Your task to perform on an android device: check battery use Image 0: 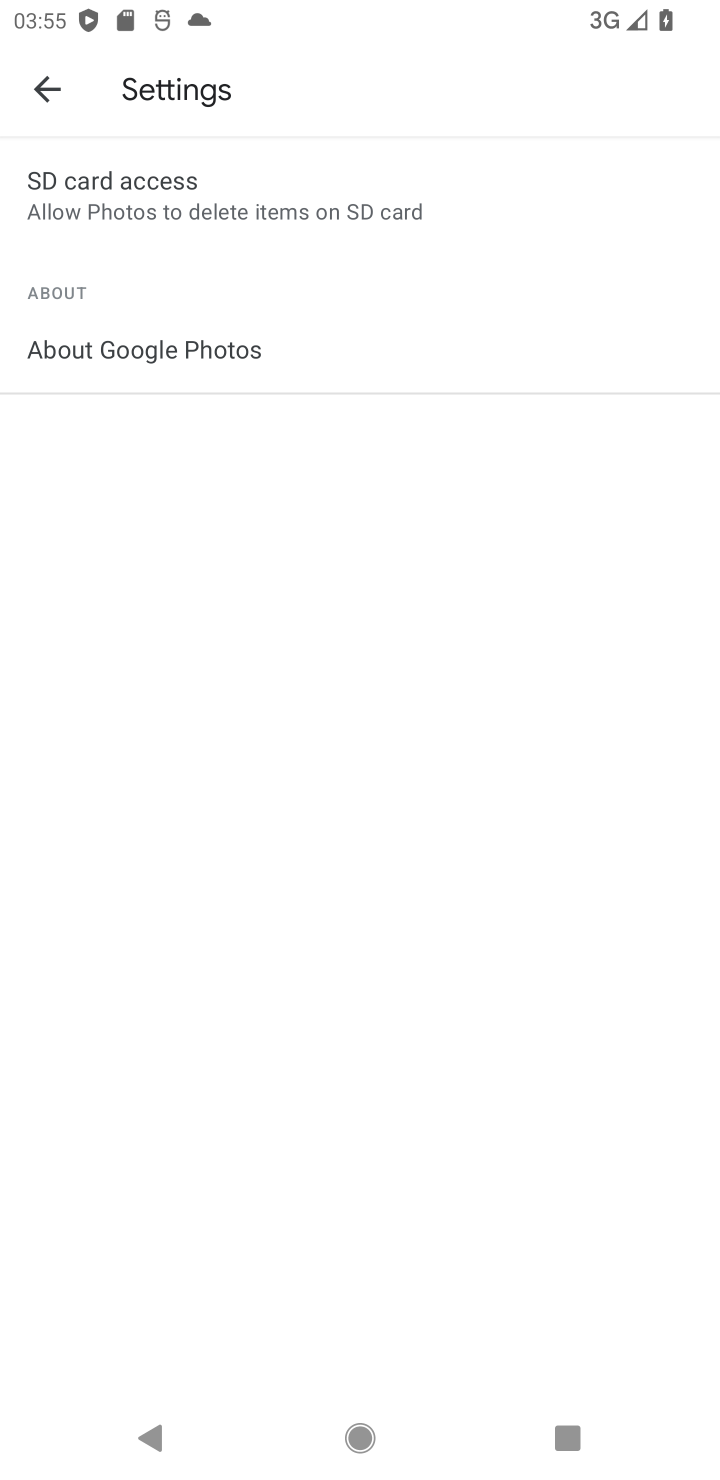
Step 0: press home button
Your task to perform on an android device: check battery use Image 1: 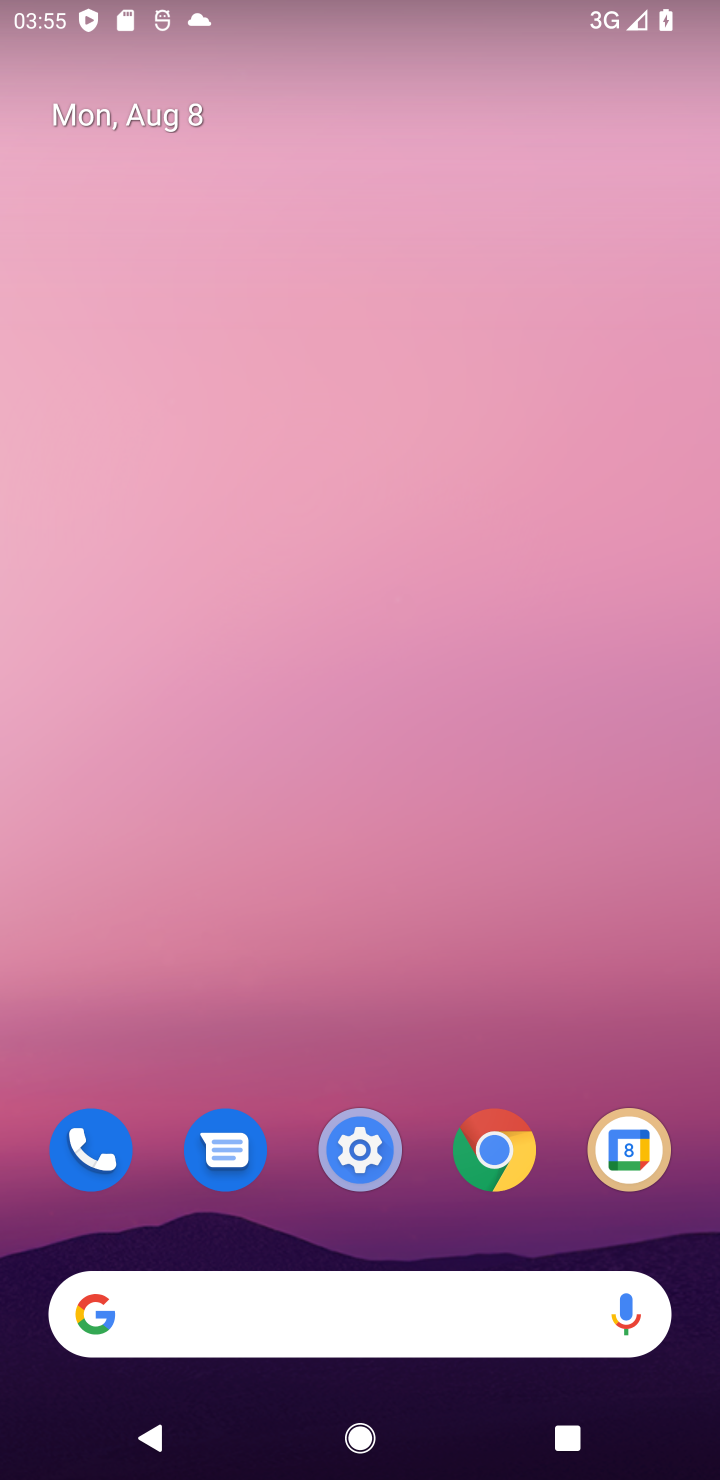
Step 1: click (369, 1151)
Your task to perform on an android device: check battery use Image 2: 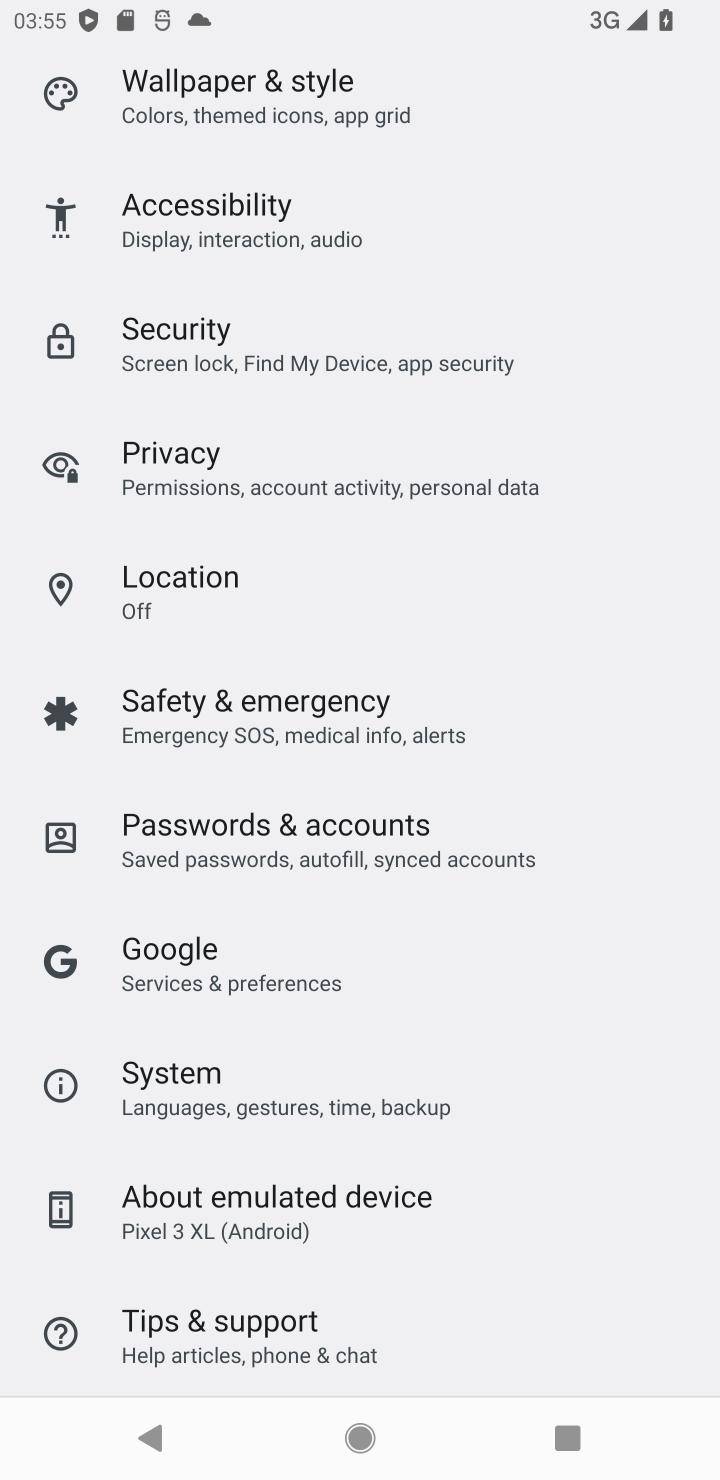
Step 2: drag from (606, 1341) to (571, 606)
Your task to perform on an android device: check battery use Image 3: 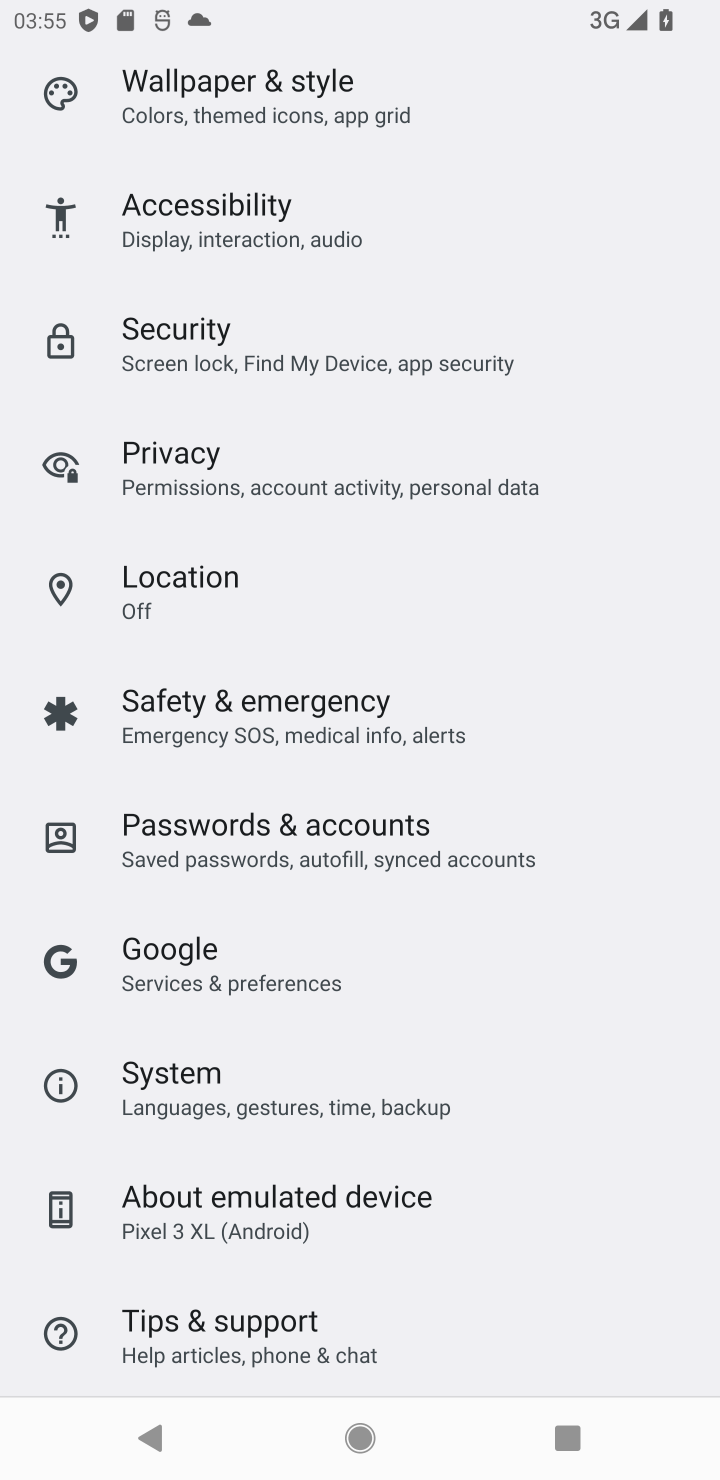
Step 3: drag from (605, 190) to (627, 763)
Your task to perform on an android device: check battery use Image 4: 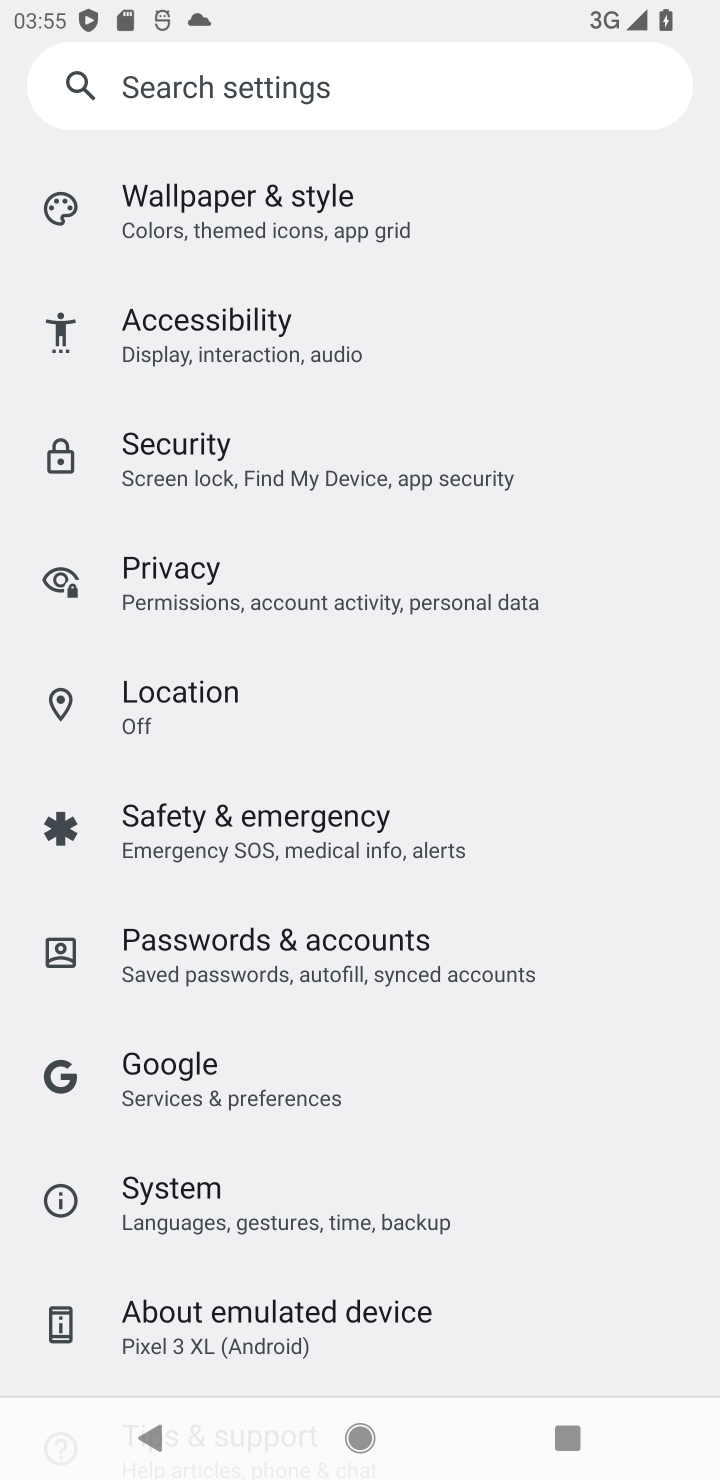
Step 4: drag from (565, 180) to (544, 919)
Your task to perform on an android device: check battery use Image 5: 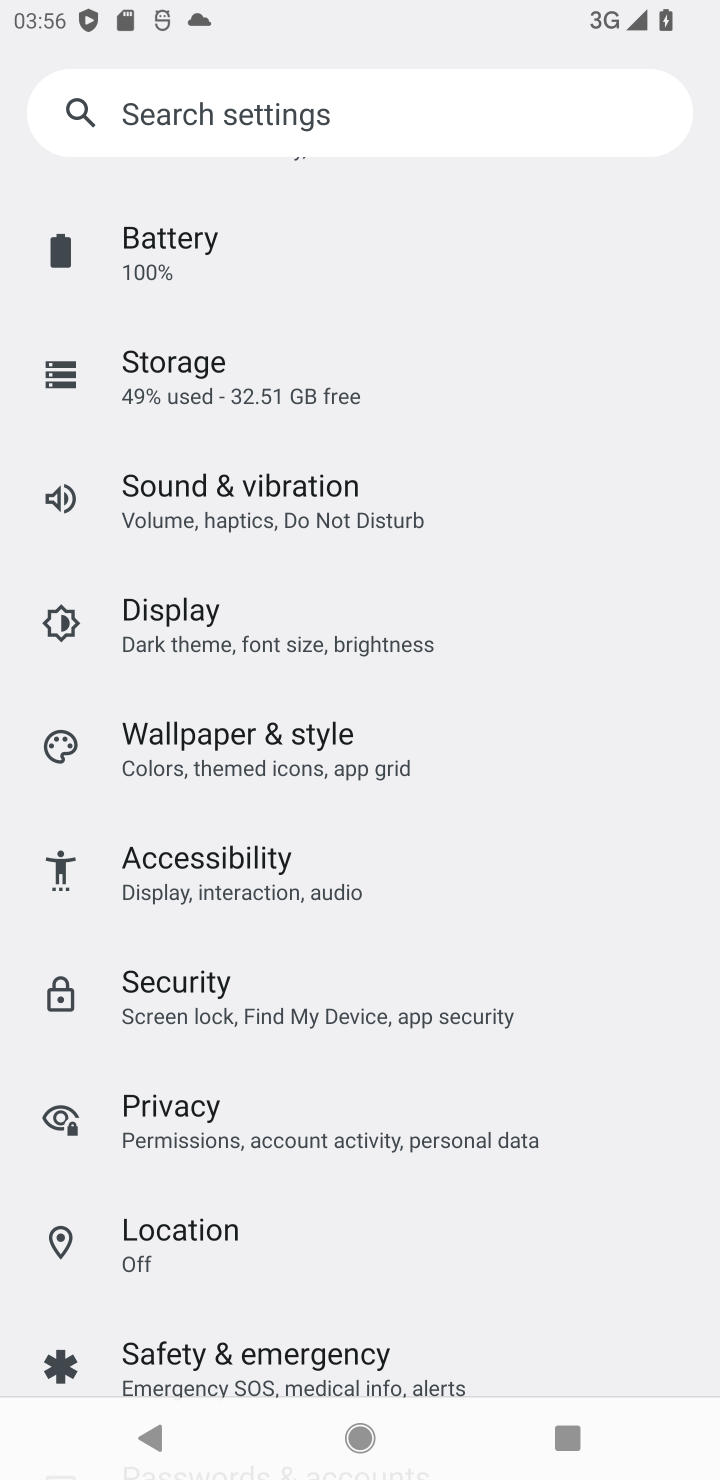
Step 5: click (177, 270)
Your task to perform on an android device: check battery use Image 6: 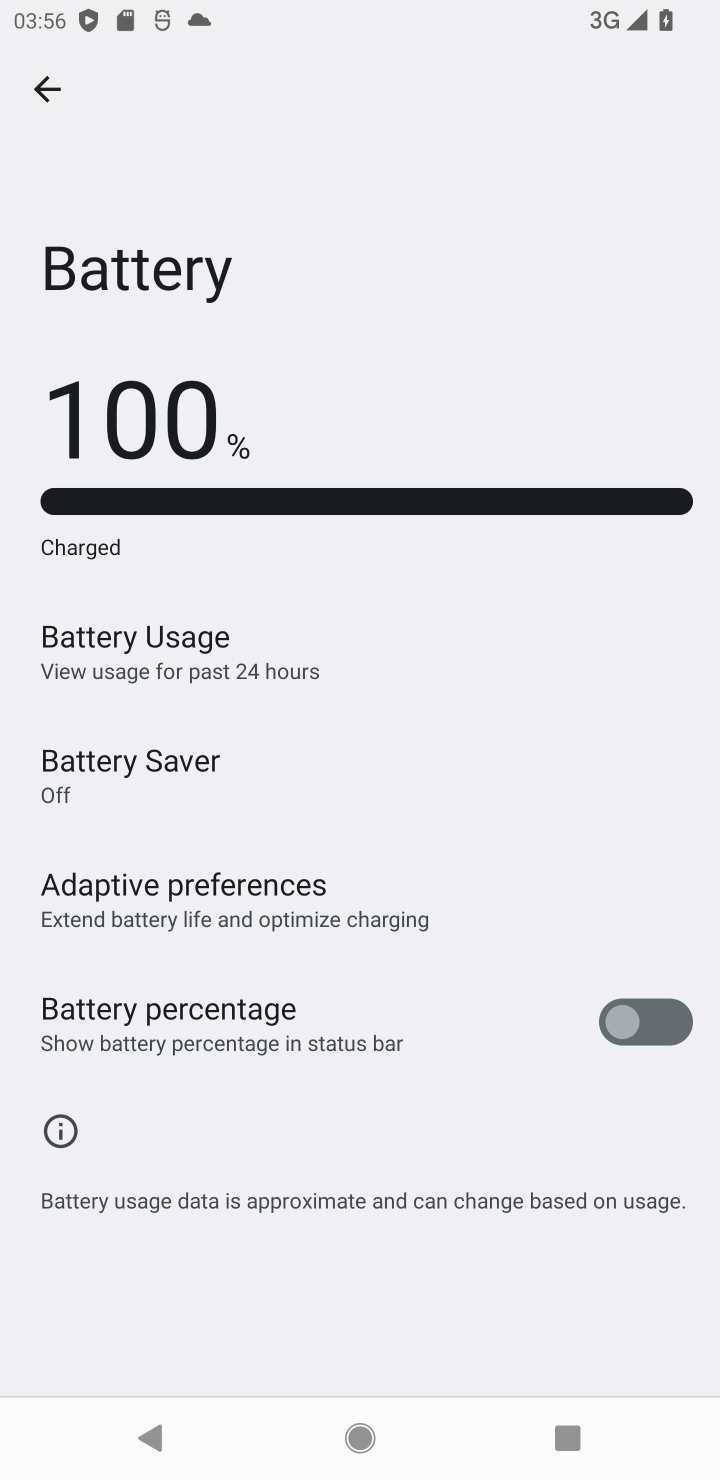
Step 6: task complete